Your task to perform on an android device: turn on wifi Image 0: 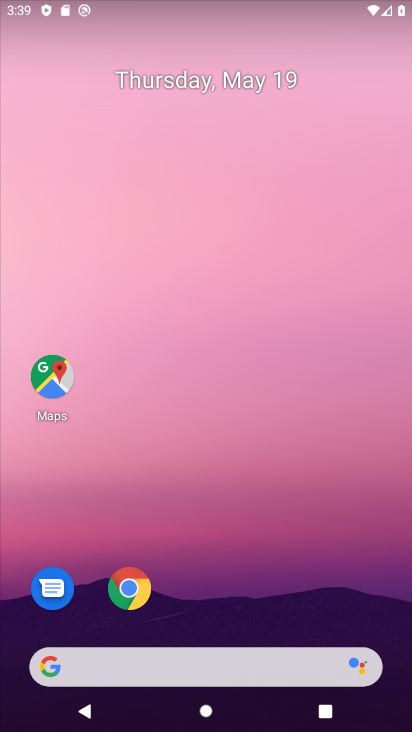
Step 0: drag from (245, 596) to (294, 160)
Your task to perform on an android device: turn on wifi Image 1: 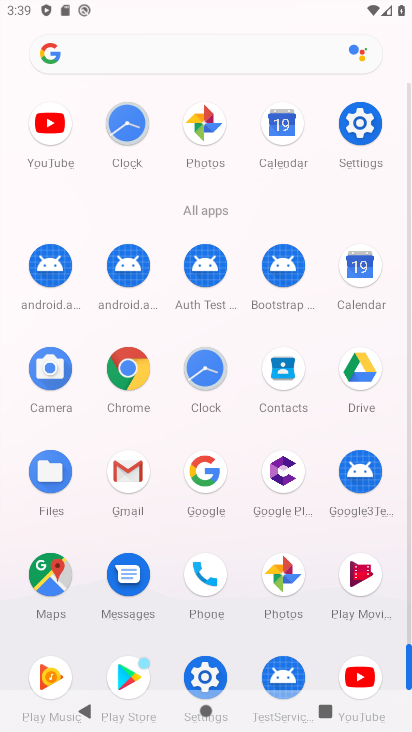
Step 1: click (369, 134)
Your task to perform on an android device: turn on wifi Image 2: 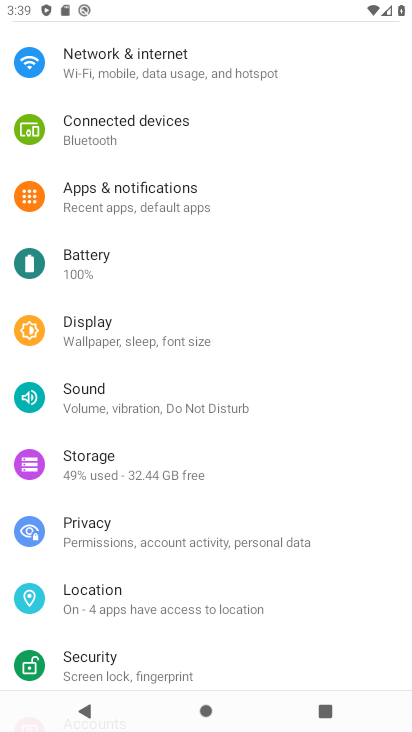
Step 2: drag from (160, 171) to (156, 299)
Your task to perform on an android device: turn on wifi Image 3: 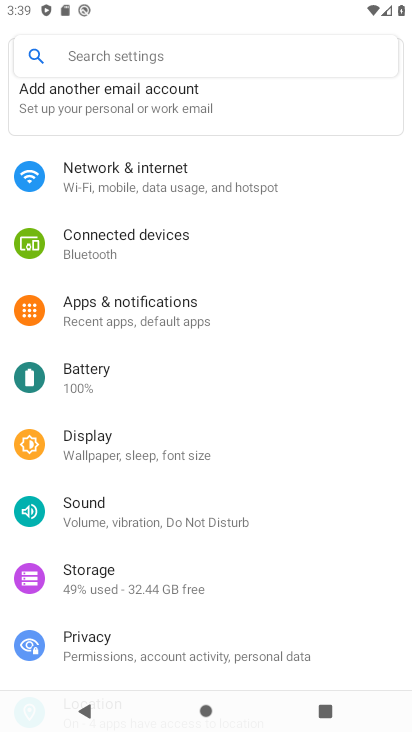
Step 3: click (115, 193)
Your task to perform on an android device: turn on wifi Image 4: 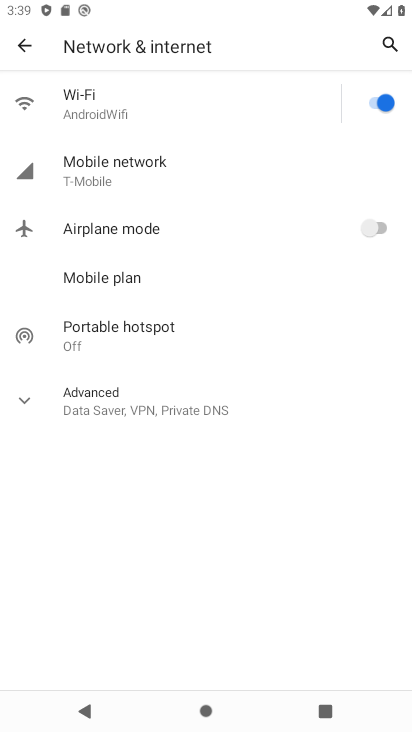
Step 4: task complete